Your task to perform on an android device: change timer sound Image 0: 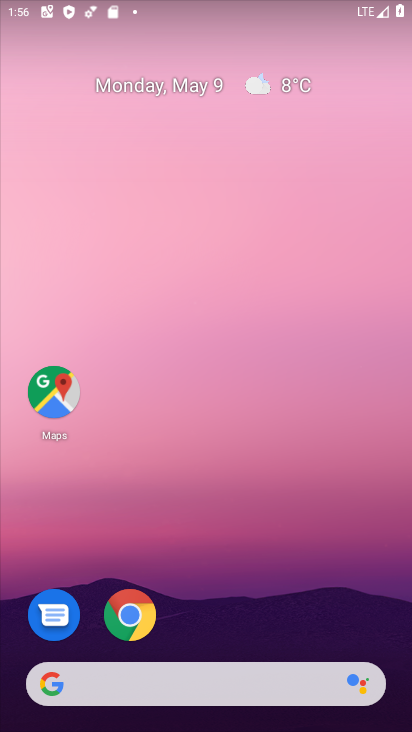
Step 0: drag from (370, 630) to (186, 3)
Your task to perform on an android device: change timer sound Image 1: 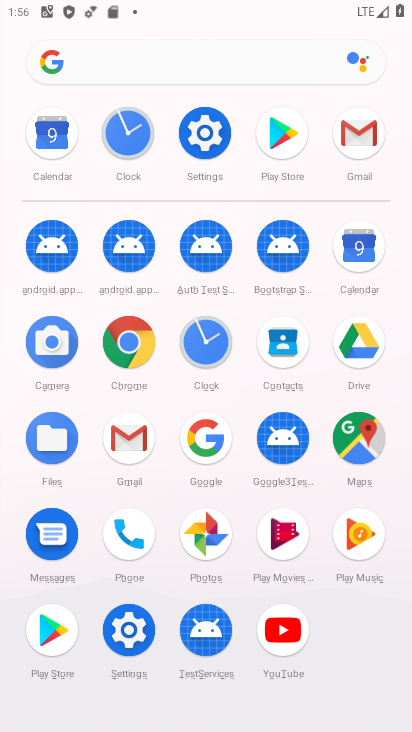
Step 1: click (206, 344)
Your task to perform on an android device: change timer sound Image 2: 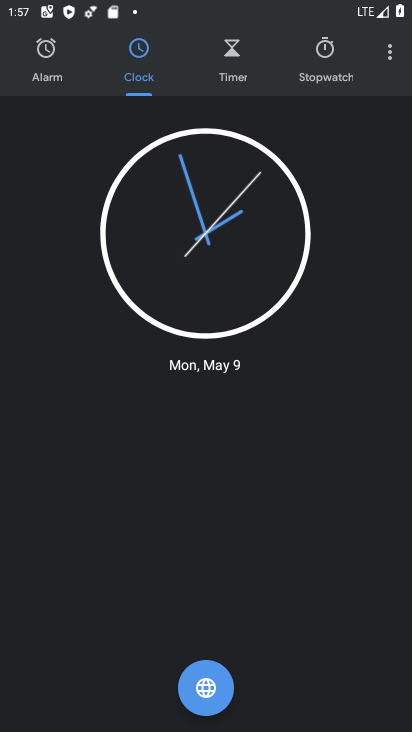
Step 2: click (389, 54)
Your task to perform on an android device: change timer sound Image 3: 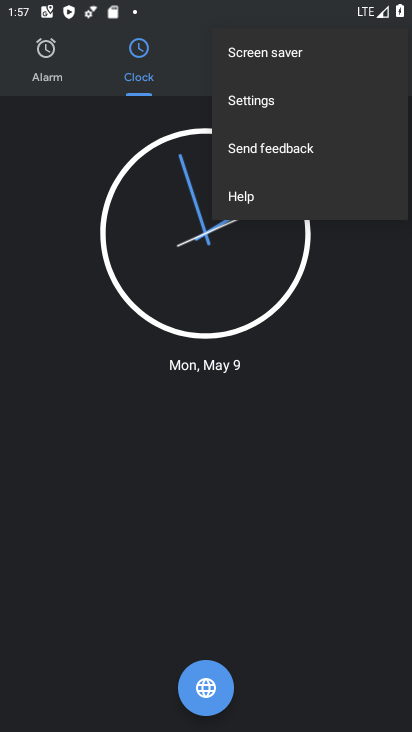
Step 3: click (247, 101)
Your task to perform on an android device: change timer sound Image 4: 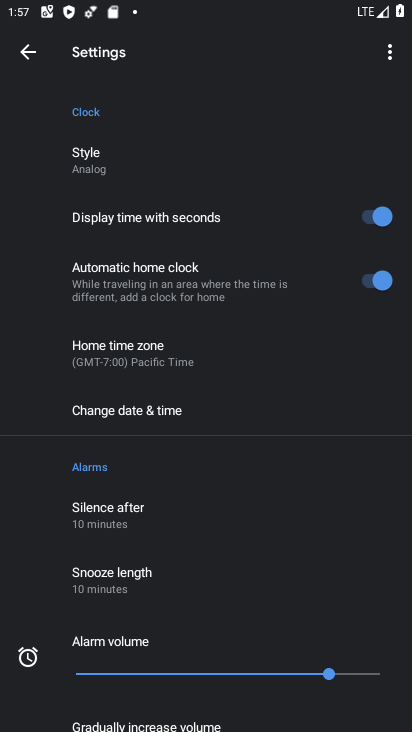
Step 4: drag from (168, 576) to (259, 152)
Your task to perform on an android device: change timer sound Image 5: 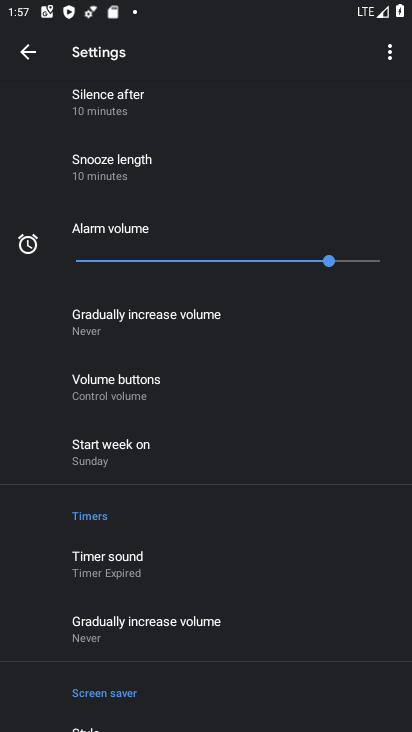
Step 5: click (108, 568)
Your task to perform on an android device: change timer sound Image 6: 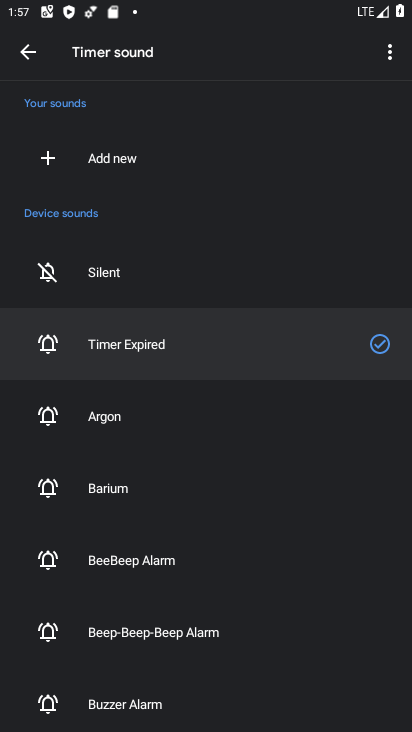
Step 6: drag from (181, 612) to (249, 344)
Your task to perform on an android device: change timer sound Image 7: 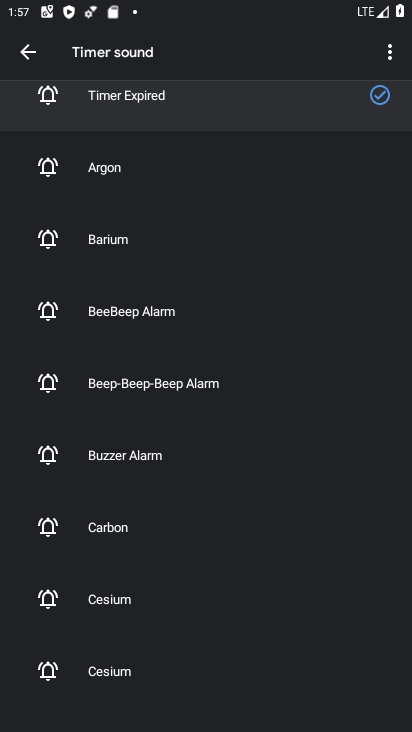
Step 7: click (108, 308)
Your task to perform on an android device: change timer sound Image 8: 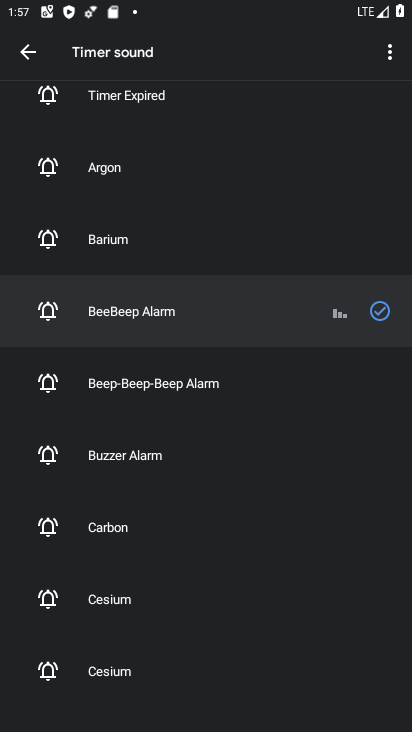
Step 8: task complete